Your task to perform on an android device: open app "Google Drive" Image 0: 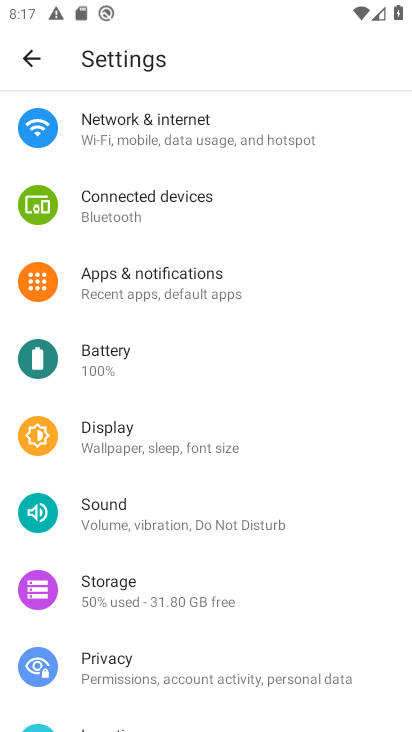
Step 0: press home button
Your task to perform on an android device: open app "Google Drive" Image 1: 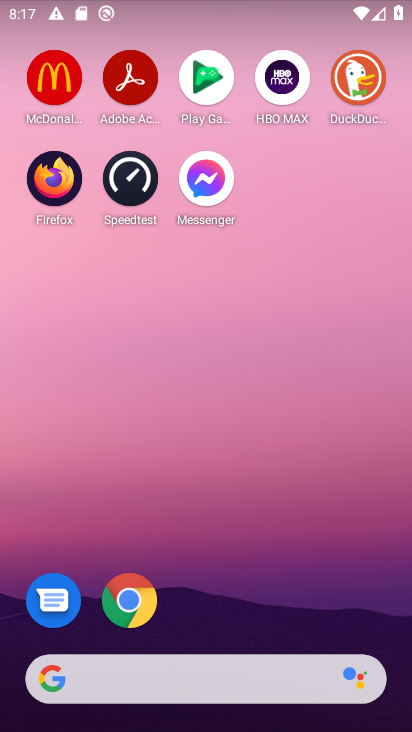
Step 1: drag from (231, 619) to (237, 159)
Your task to perform on an android device: open app "Google Drive" Image 2: 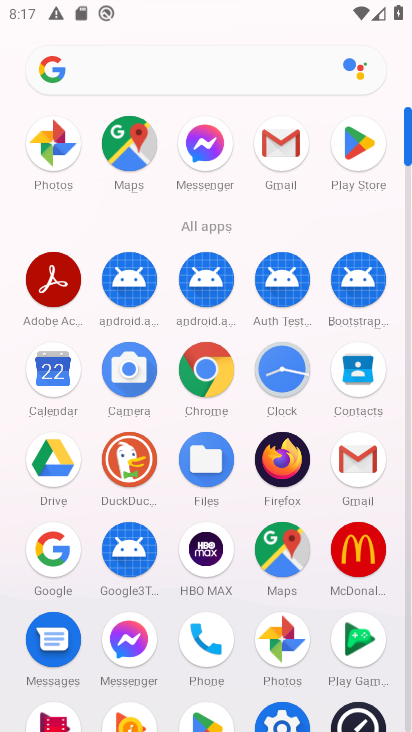
Step 2: click (340, 155)
Your task to perform on an android device: open app "Google Drive" Image 3: 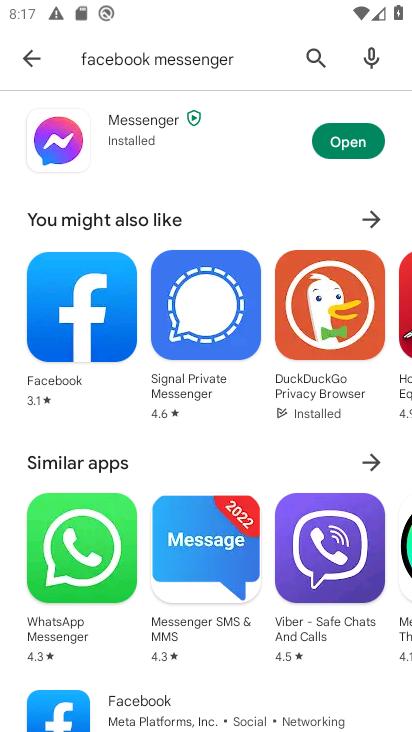
Step 3: click (320, 55)
Your task to perform on an android device: open app "Google Drive" Image 4: 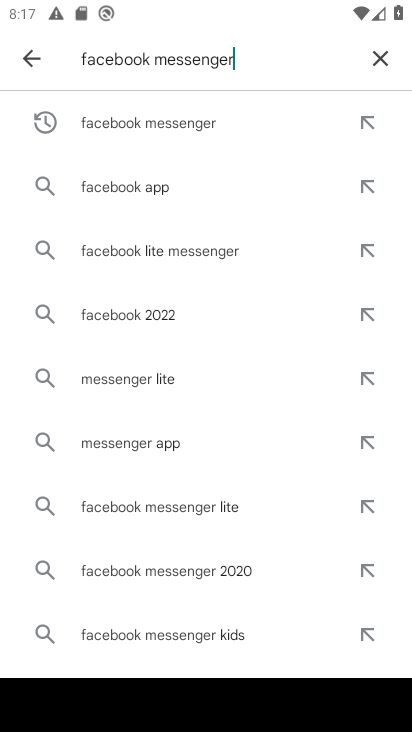
Step 4: click (371, 55)
Your task to perform on an android device: open app "Google Drive" Image 5: 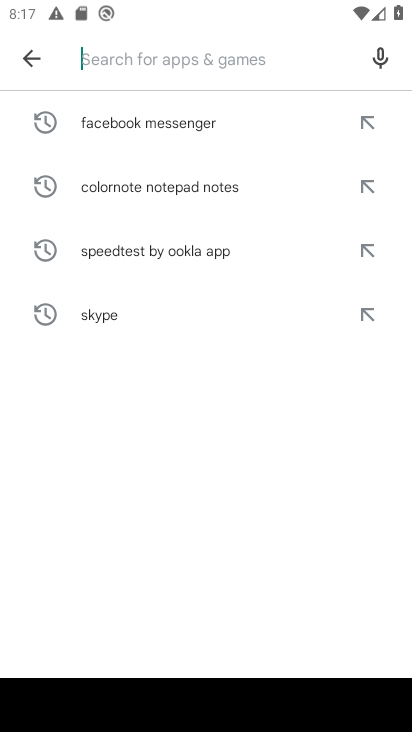
Step 5: type "Google Drive"
Your task to perform on an android device: open app "Google Drive" Image 6: 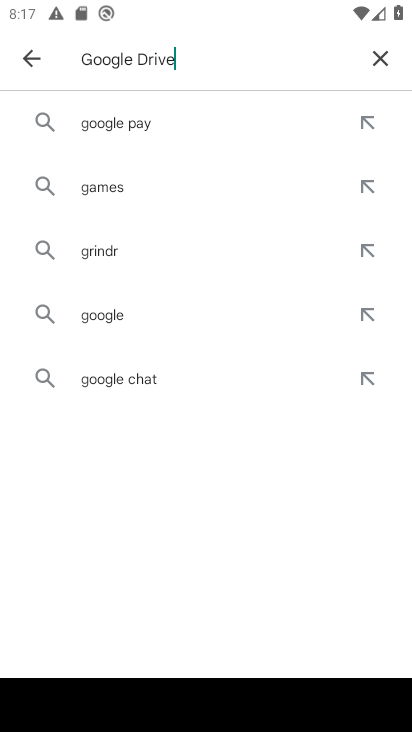
Step 6: type ""
Your task to perform on an android device: open app "Google Drive" Image 7: 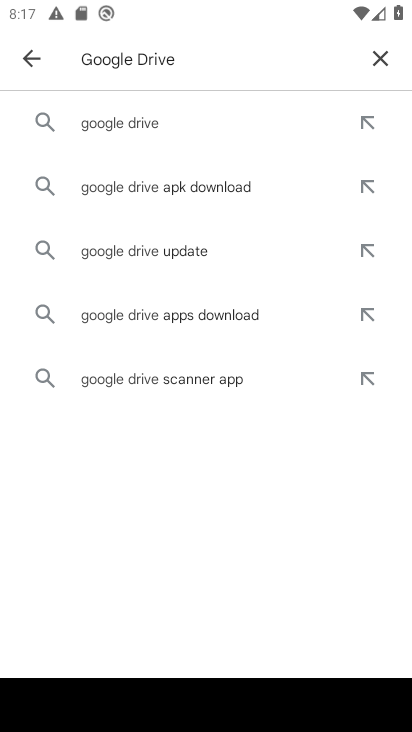
Step 7: click (168, 123)
Your task to perform on an android device: open app "Google Drive" Image 8: 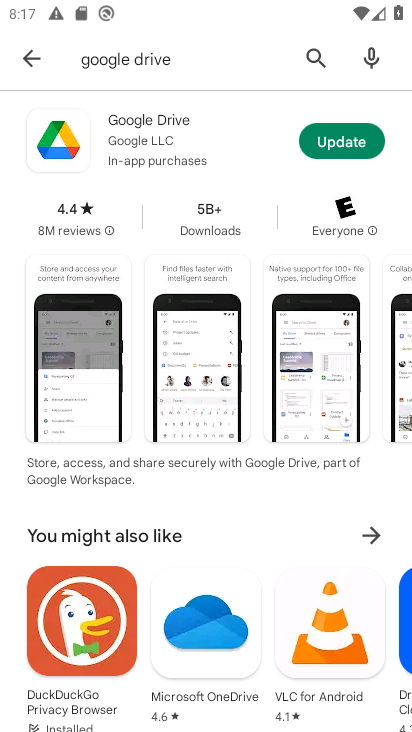
Step 8: click (185, 131)
Your task to perform on an android device: open app "Google Drive" Image 9: 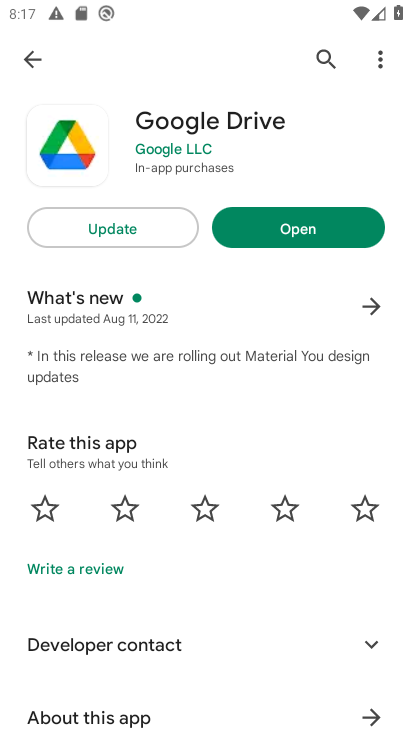
Step 9: click (259, 211)
Your task to perform on an android device: open app "Google Drive" Image 10: 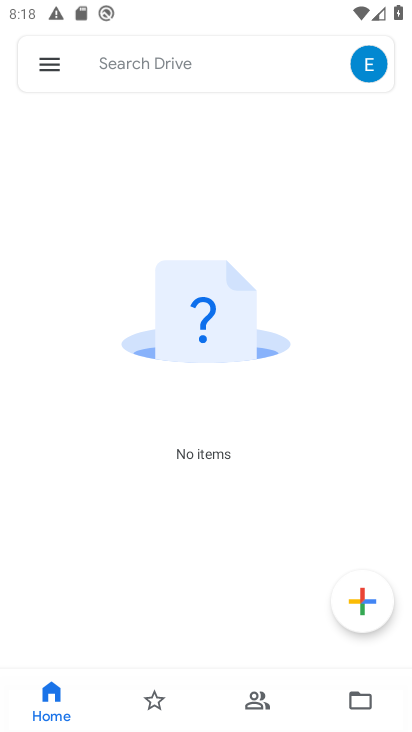
Step 10: task complete